Your task to perform on an android device: Go to Reddit.com Image 0: 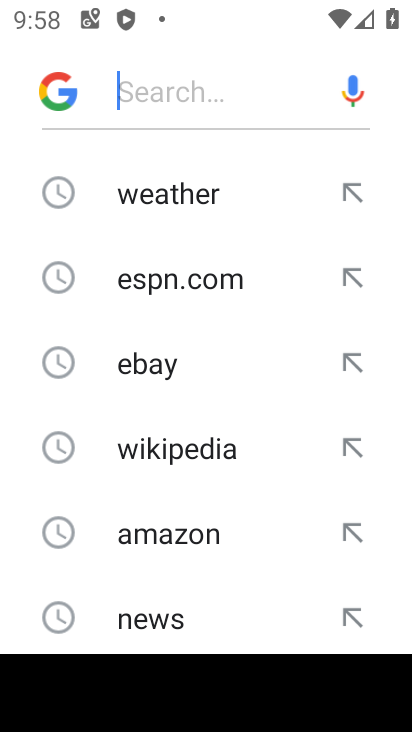
Step 0: press home button
Your task to perform on an android device: Go to Reddit.com Image 1: 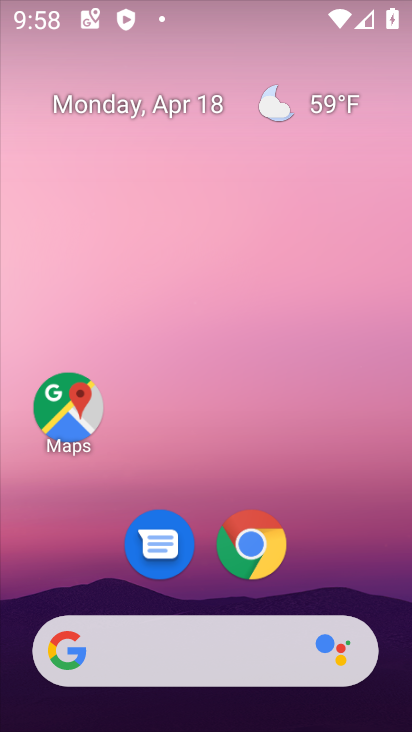
Step 1: drag from (278, 600) to (301, 220)
Your task to perform on an android device: Go to Reddit.com Image 2: 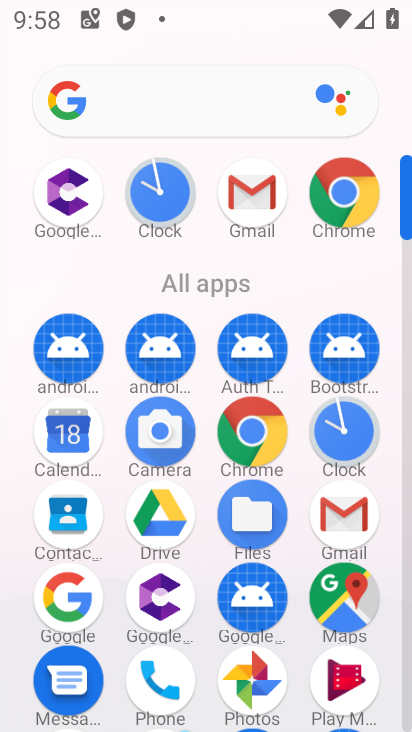
Step 2: click (339, 199)
Your task to perform on an android device: Go to Reddit.com Image 3: 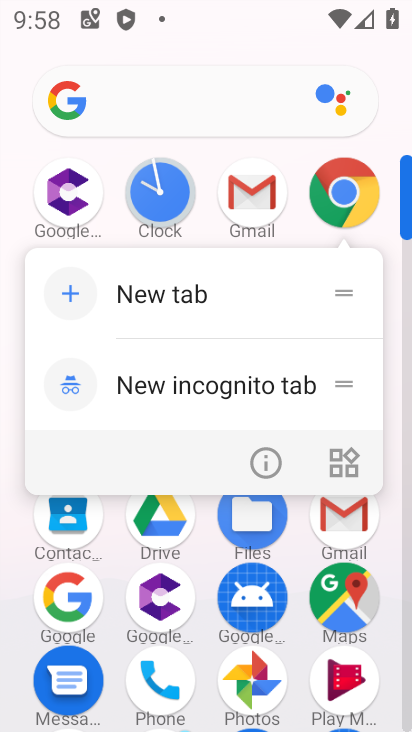
Step 3: click (321, 206)
Your task to perform on an android device: Go to Reddit.com Image 4: 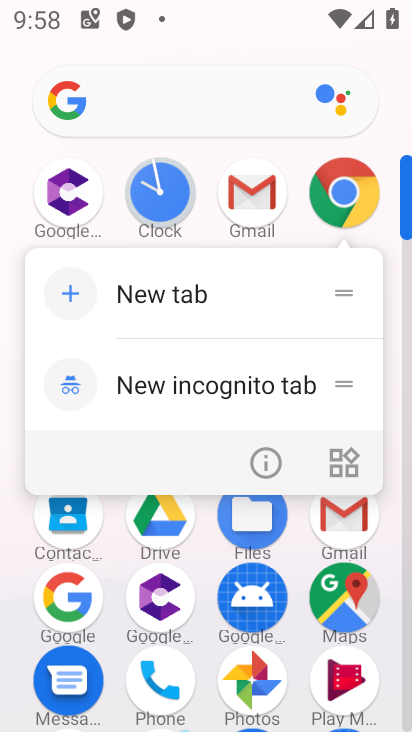
Step 4: click (331, 195)
Your task to perform on an android device: Go to Reddit.com Image 5: 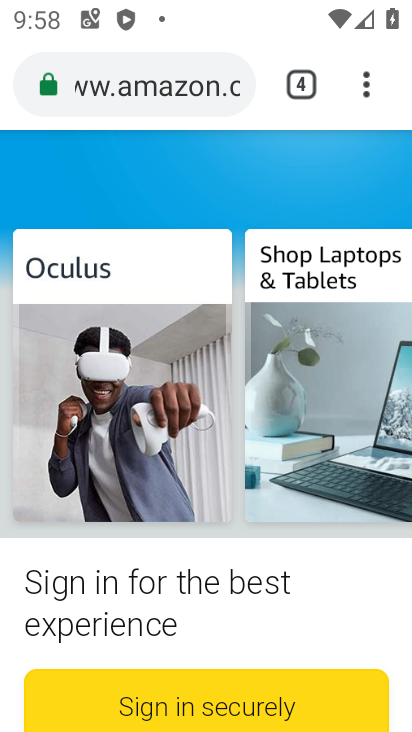
Step 5: click (357, 75)
Your task to perform on an android device: Go to Reddit.com Image 6: 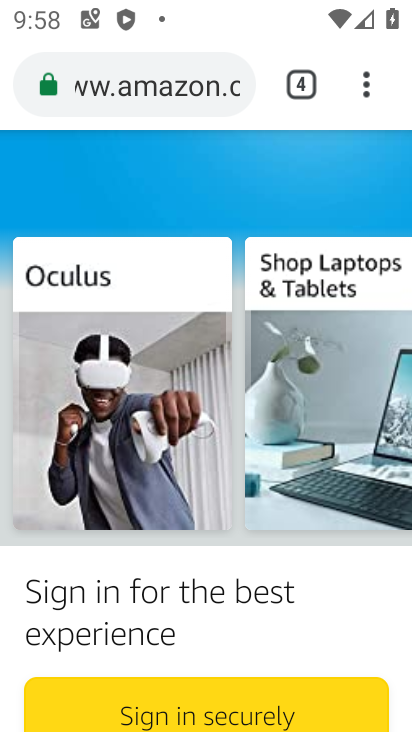
Step 6: click (368, 84)
Your task to perform on an android device: Go to Reddit.com Image 7: 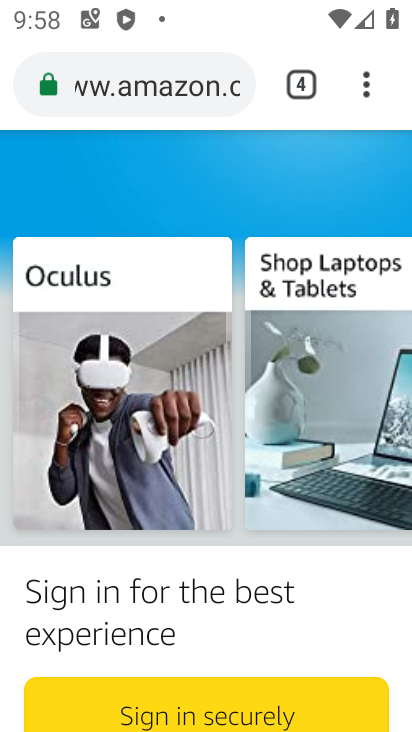
Step 7: click (383, 81)
Your task to perform on an android device: Go to Reddit.com Image 8: 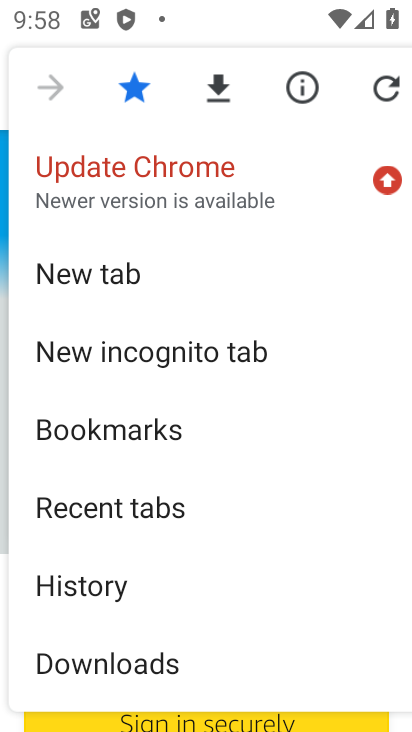
Step 8: click (136, 272)
Your task to perform on an android device: Go to Reddit.com Image 9: 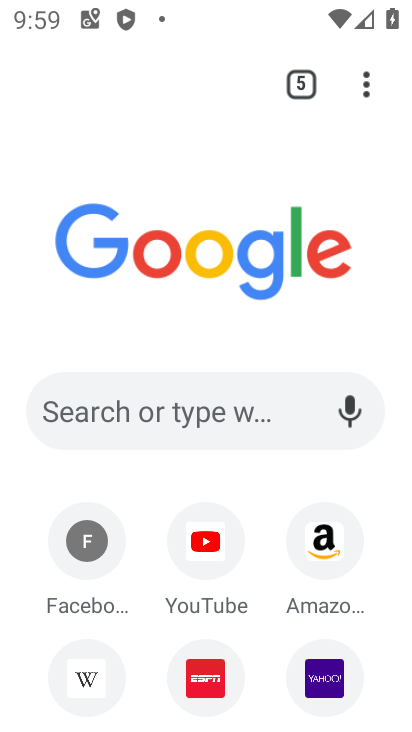
Step 9: click (177, 412)
Your task to perform on an android device: Go to Reddit.com Image 10: 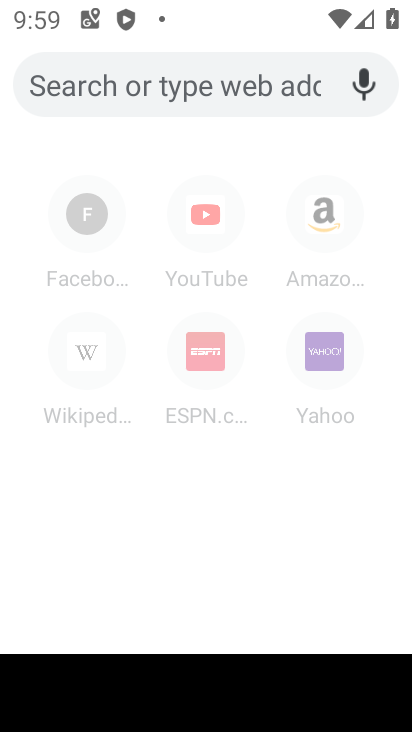
Step 10: type " Reddit.com"
Your task to perform on an android device: Go to Reddit.com Image 11: 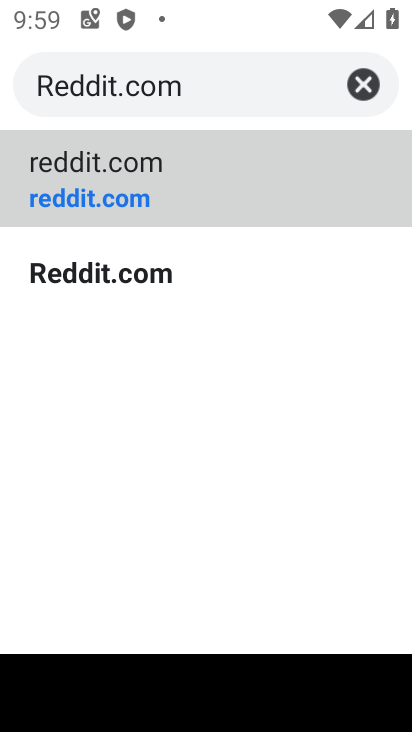
Step 11: click (187, 156)
Your task to perform on an android device: Go to Reddit.com Image 12: 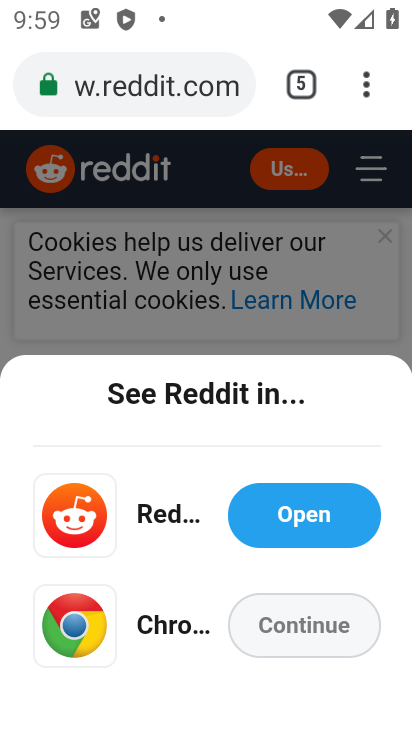
Step 12: click (310, 520)
Your task to perform on an android device: Go to Reddit.com Image 13: 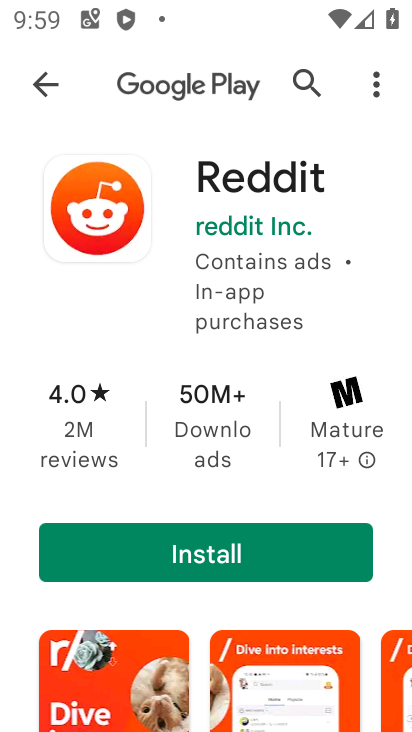
Step 13: task complete